Your task to perform on an android device: turn off sleep mode Image 0: 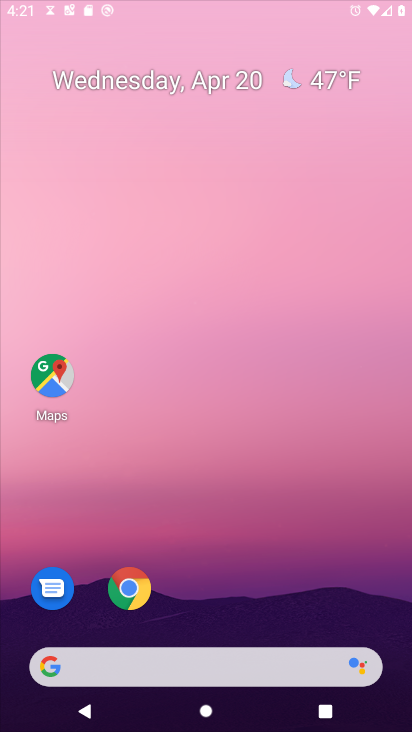
Step 0: drag from (291, 588) to (286, 301)
Your task to perform on an android device: turn off sleep mode Image 1: 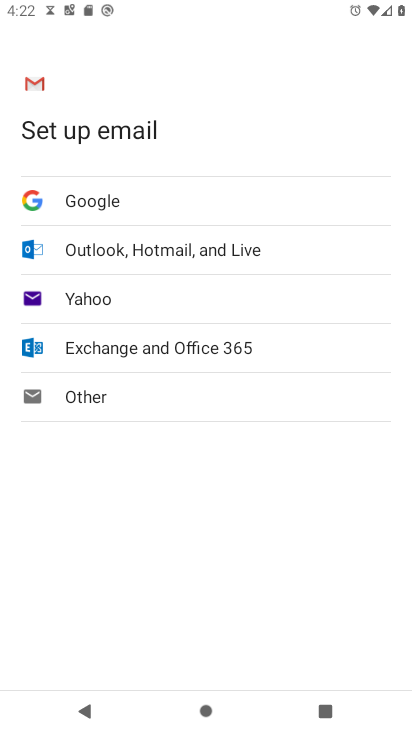
Step 1: press home button
Your task to perform on an android device: turn off sleep mode Image 2: 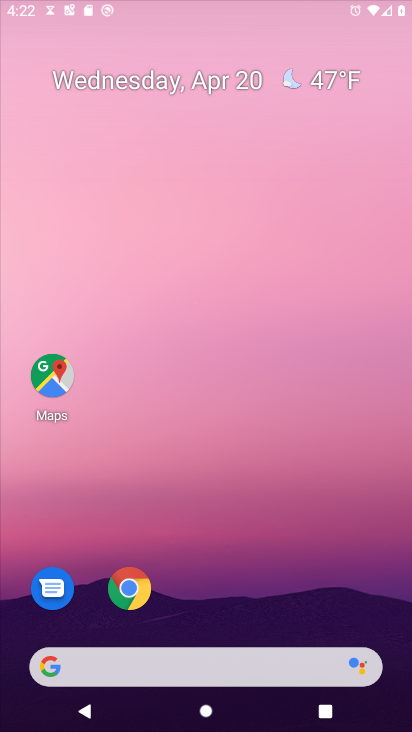
Step 2: drag from (227, 508) to (212, 124)
Your task to perform on an android device: turn off sleep mode Image 3: 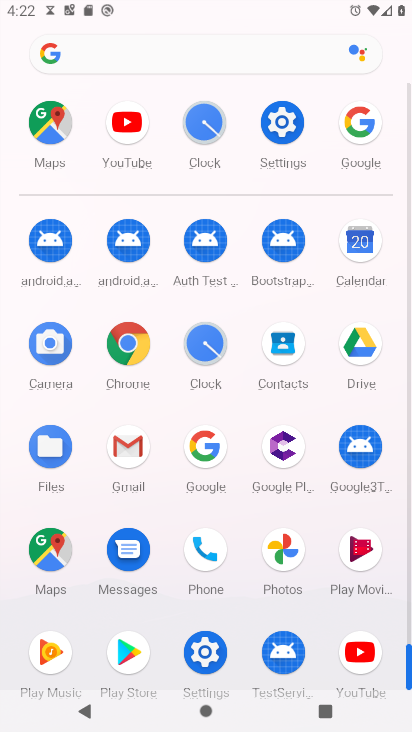
Step 3: click (275, 131)
Your task to perform on an android device: turn off sleep mode Image 4: 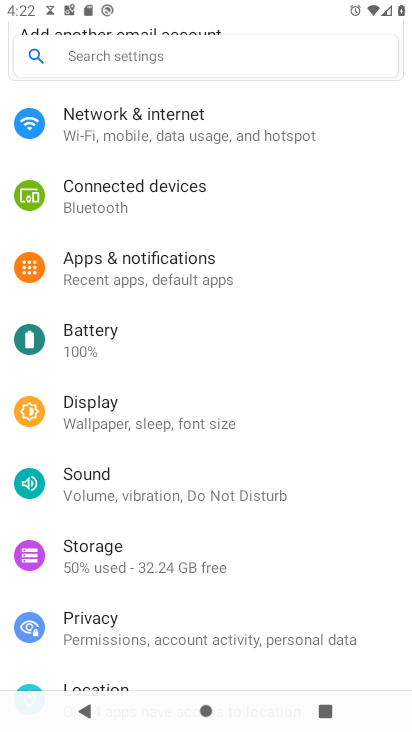
Step 4: drag from (166, 369) to (169, 260)
Your task to perform on an android device: turn off sleep mode Image 5: 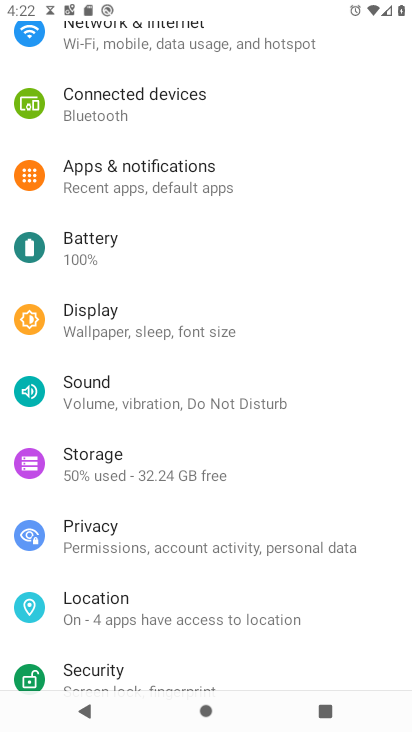
Step 5: click (172, 334)
Your task to perform on an android device: turn off sleep mode Image 6: 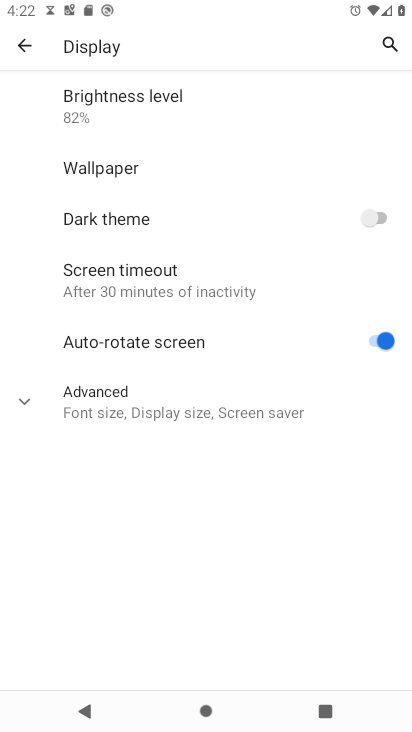
Step 6: click (192, 388)
Your task to perform on an android device: turn off sleep mode Image 7: 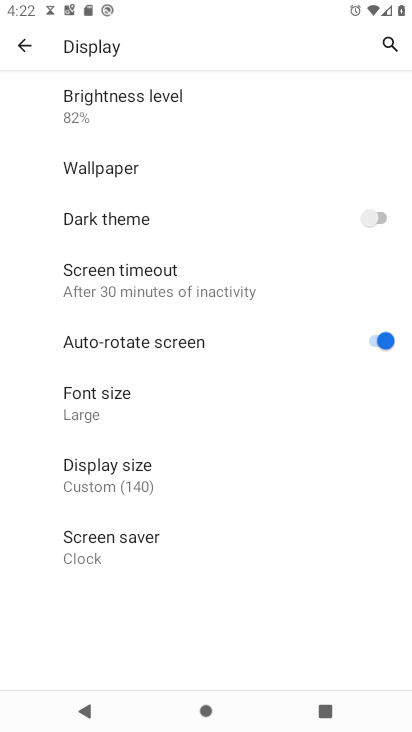
Step 7: task complete